Your task to perform on an android device: set the stopwatch Image 0: 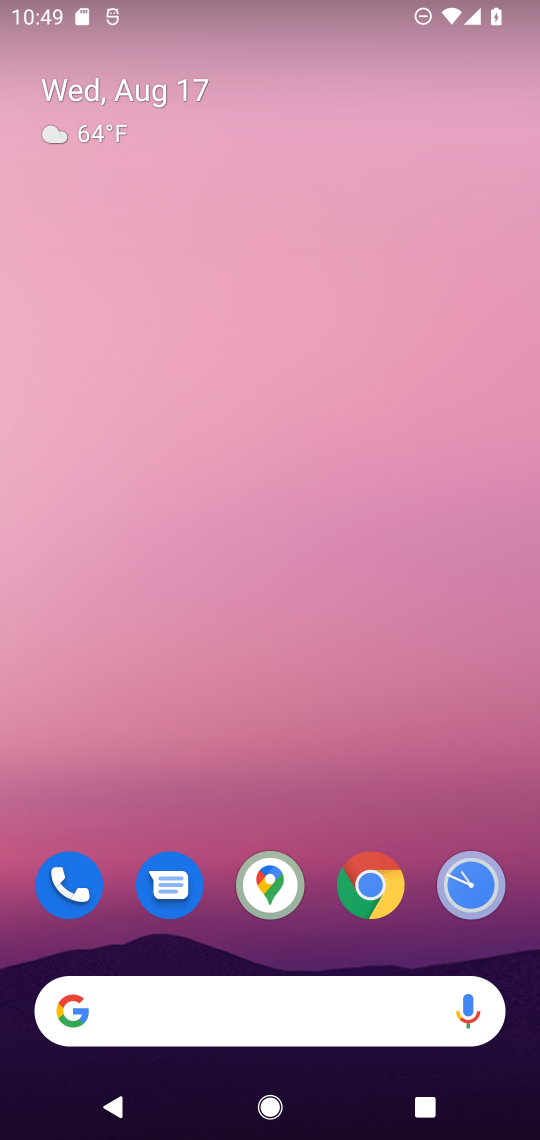
Step 0: click (467, 888)
Your task to perform on an android device: set the stopwatch Image 1: 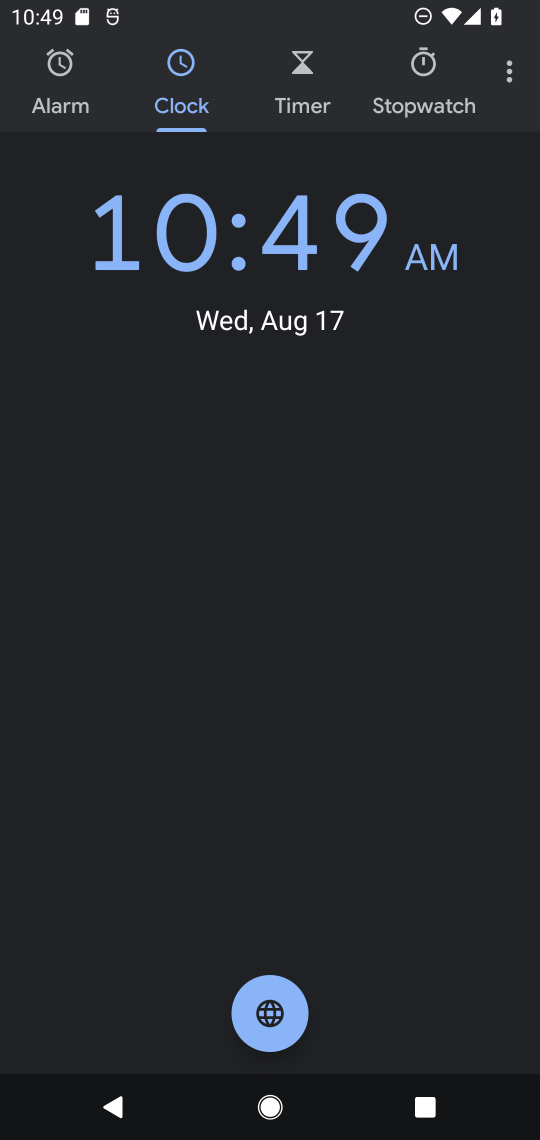
Step 1: click (413, 68)
Your task to perform on an android device: set the stopwatch Image 2: 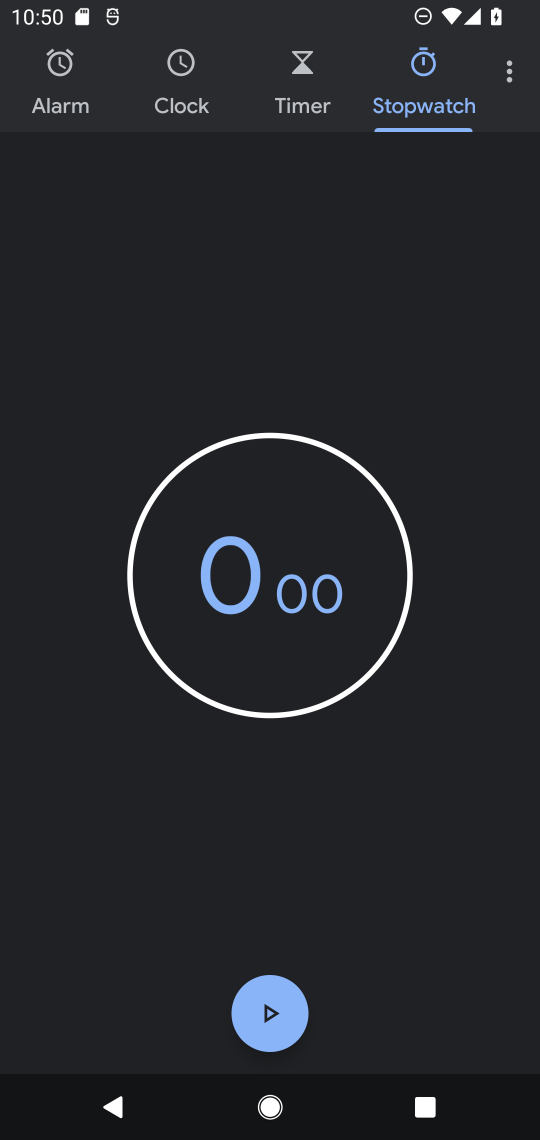
Step 2: task complete